Your task to perform on an android device: Open CNN.com Image 0: 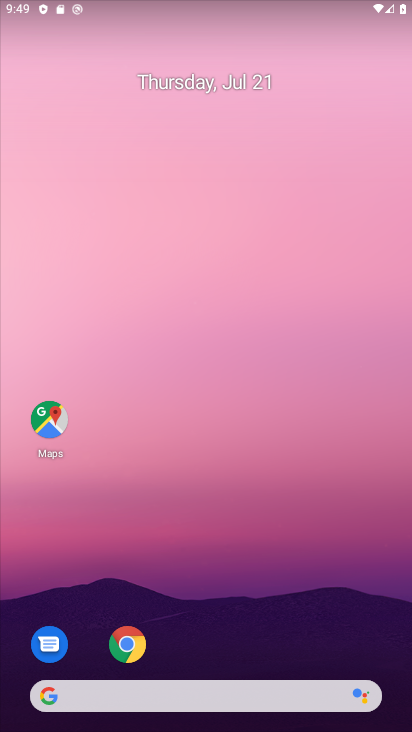
Step 0: click (129, 640)
Your task to perform on an android device: Open CNN.com Image 1: 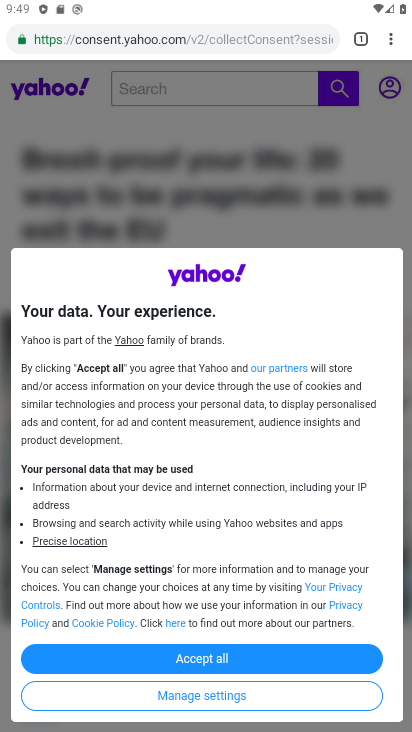
Step 1: click (181, 39)
Your task to perform on an android device: Open CNN.com Image 2: 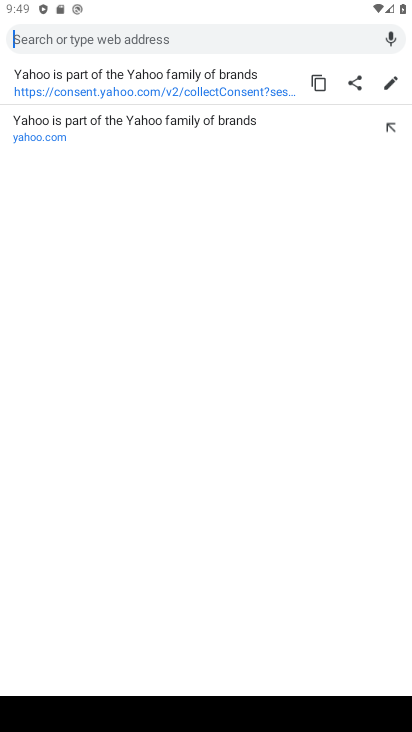
Step 2: type "CNN.com"
Your task to perform on an android device: Open CNN.com Image 3: 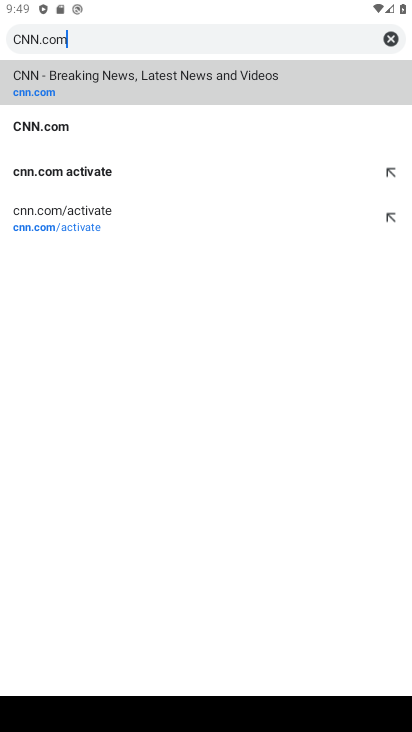
Step 3: click (93, 85)
Your task to perform on an android device: Open CNN.com Image 4: 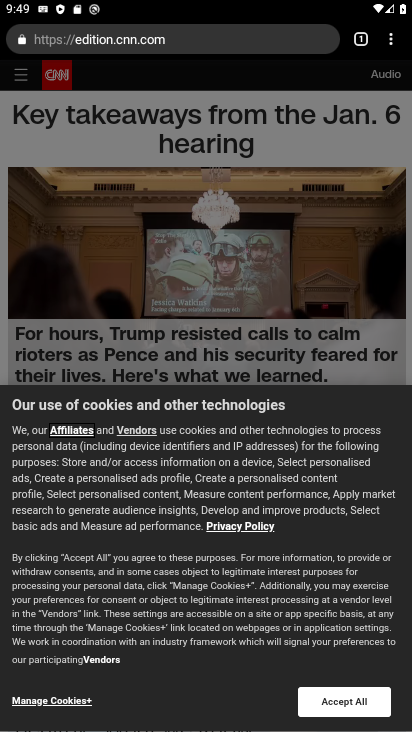
Step 4: task complete